Your task to perform on an android device: toggle translation in the chrome app Image 0: 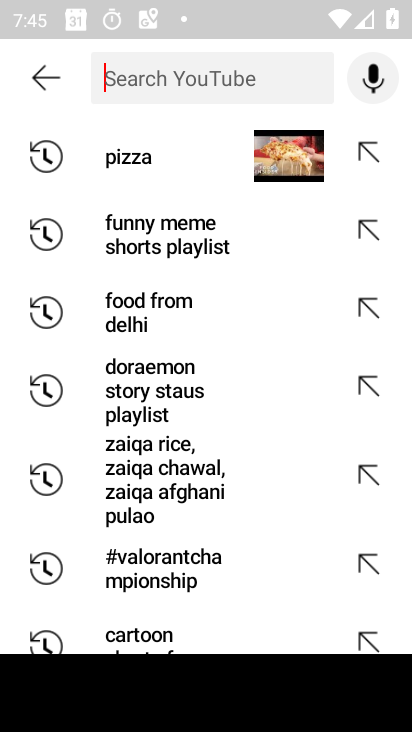
Step 0: press home button
Your task to perform on an android device: toggle translation in the chrome app Image 1: 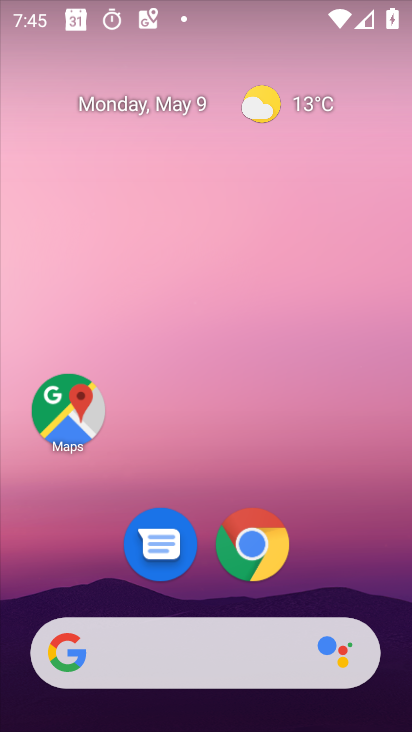
Step 1: drag from (333, 554) to (355, 12)
Your task to perform on an android device: toggle translation in the chrome app Image 2: 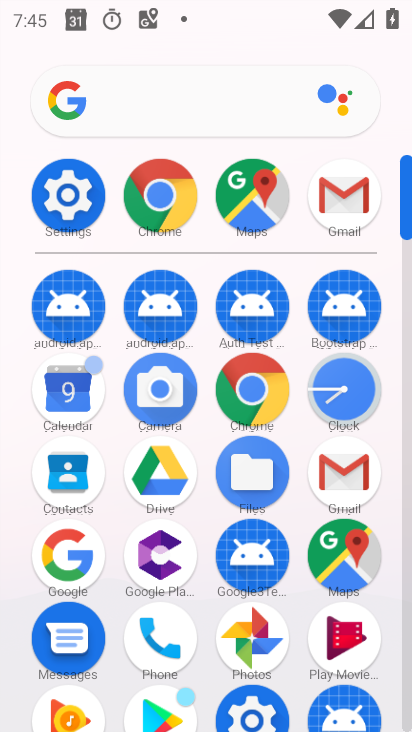
Step 2: click (150, 190)
Your task to perform on an android device: toggle translation in the chrome app Image 3: 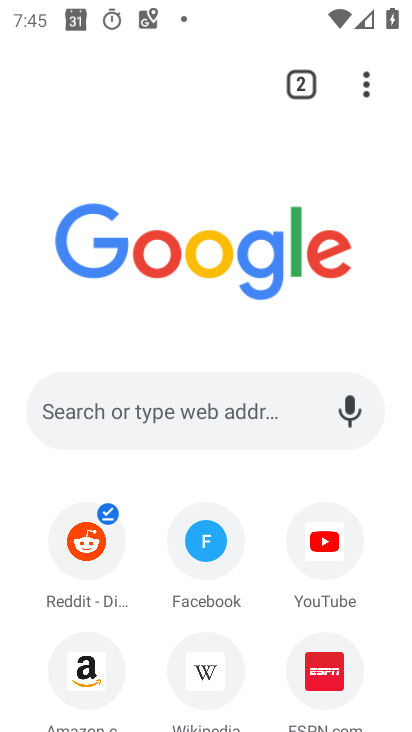
Step 3: drag from (361, 94) to (123, 592)
Your task to perform on an android device: toggle translation in the chrome app Image 4: 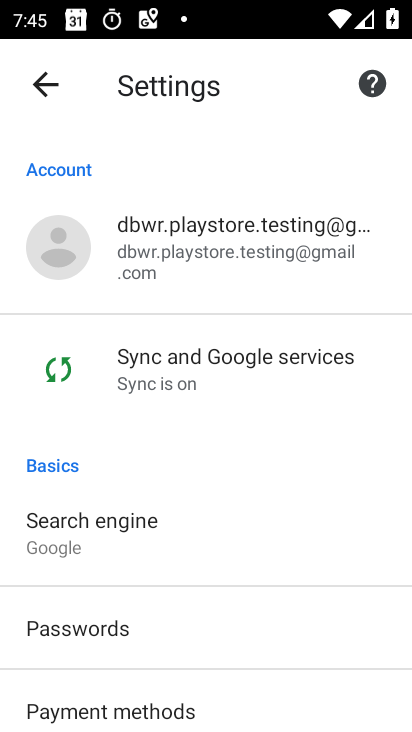
Step 4: drag from (154, 654) to (196, 270)
Your task to perform on an android device: toggle translation in the chrome app Image 5: 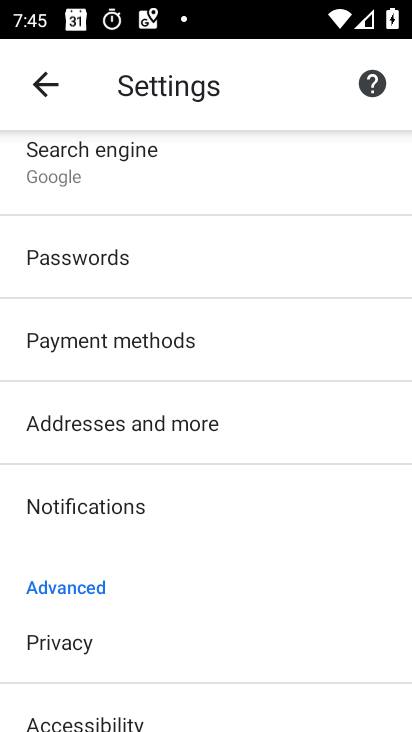
Step 5: drag from (260, 648) to (381, 275)
Your task to perform on an android device: toggle translation in the chrome app Image 6: 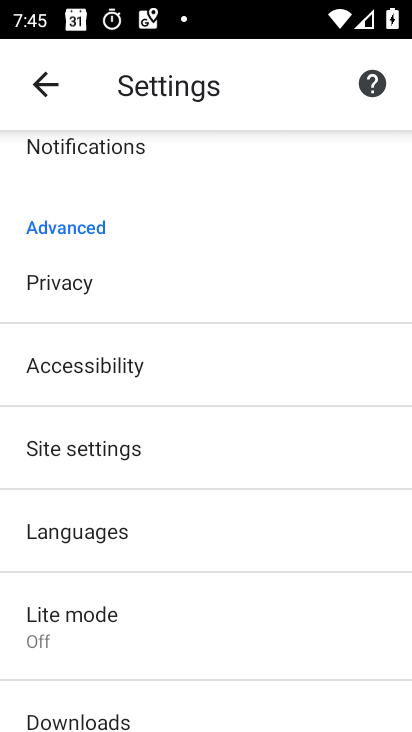
Step 6: click (76, 527)
Your task to perform on an android device: toggle translation in the chrome app Image 7: 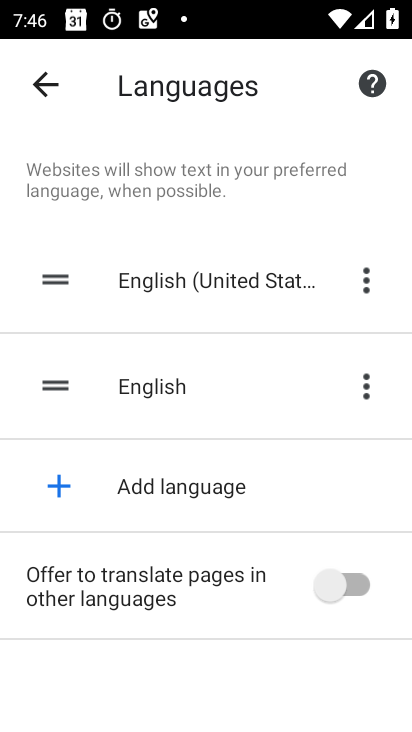
Step 7: click (338, 587)
Your task to perform on an android device: toggle translation in the chrome app Image 8: 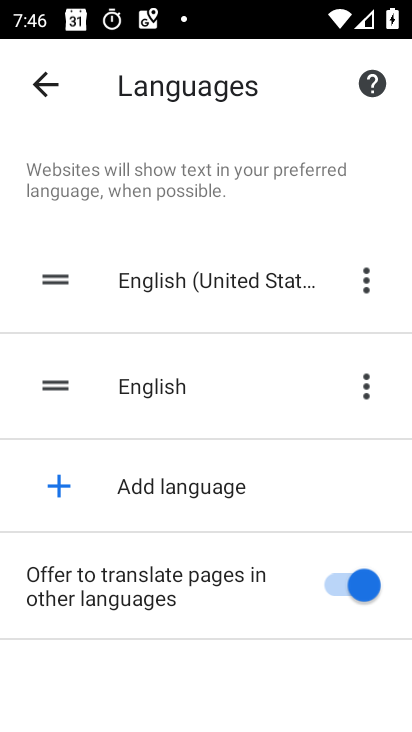
Step 8: task complete